Your task to perform on an android device: Open display settings Image 0: 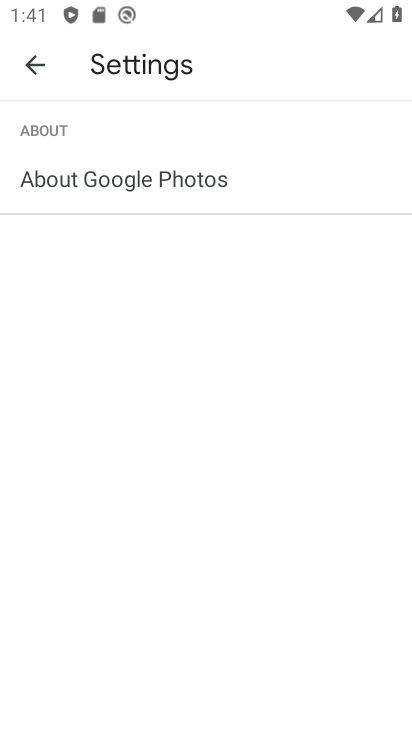
Step 0: press home button
Your task to perform on an android device: Open display settings Image 1: 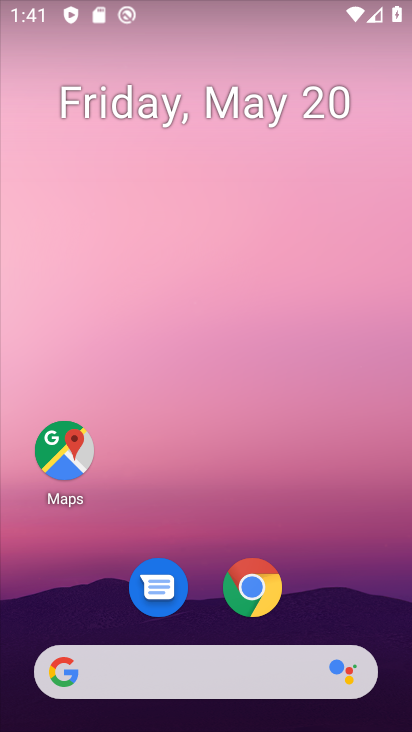
Step 1: drag from (386, 584) to (281, 173)
Your task to perform on an android device: Open display settings Image 2: 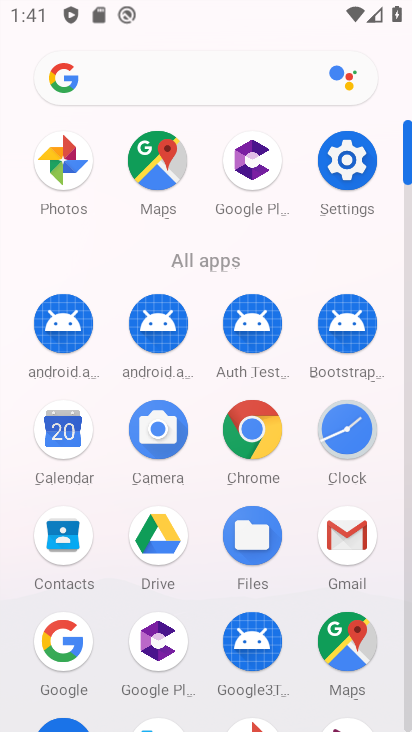
Step 2: click (353, 176)
Your task to perform on an android device: Open display settings Image 3: 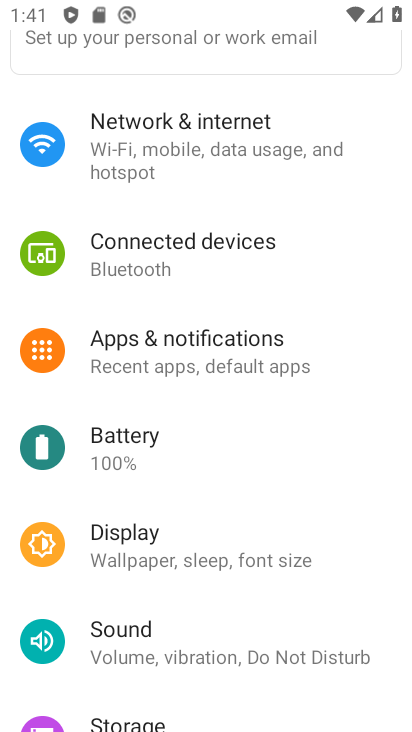
Step 3: drag from (250, 633) to (194, 239)
Your task to perform on an android device: Open display settings Image 4: 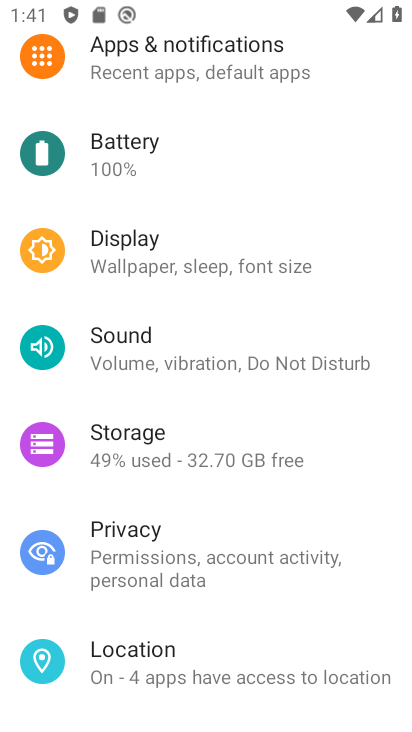
Step 4: click (194, 239)
Your task to perform on an android device: Open display settings Image 5: 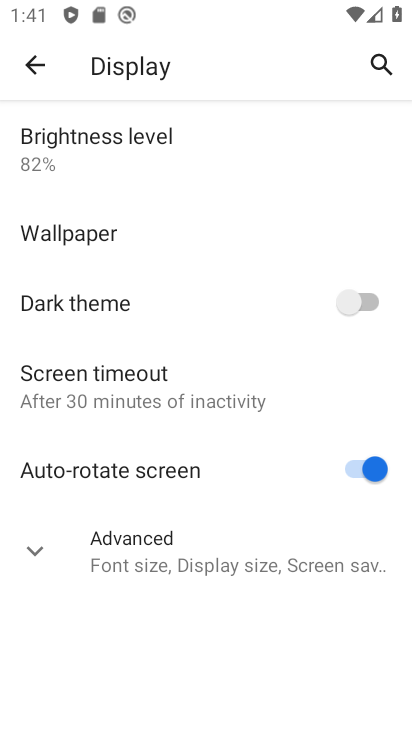
Step 5: task complete